Your task to perform on an android device: Open Google Maps and go to "Timeline" Image 0: 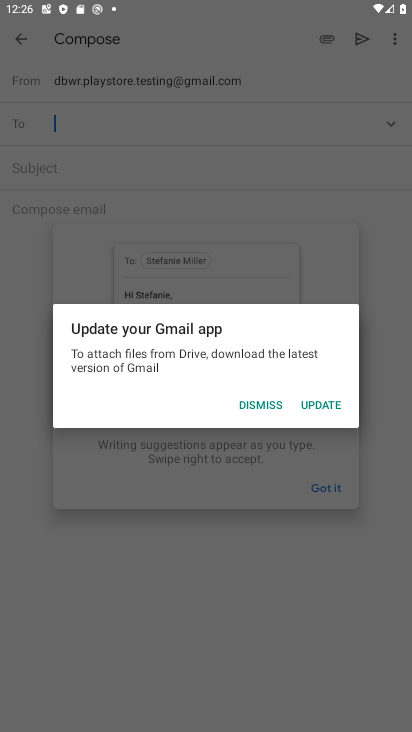
Step 0: click (273, 402)
Your task to perform on an android device: Open Google Maps and go to "Timeline" Image 1: 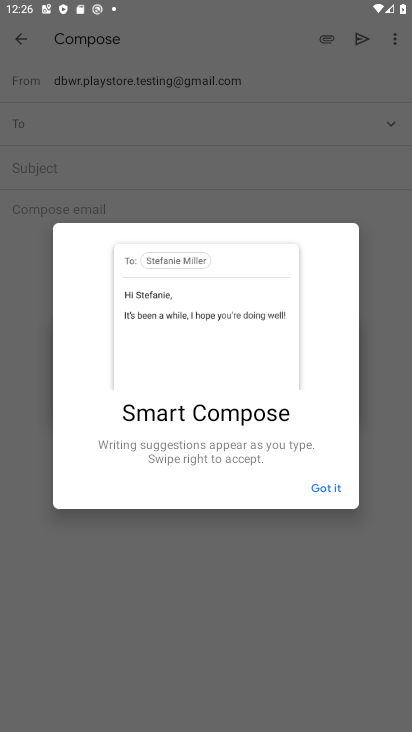
Step 1: click (328, 485)
Your task to perform on an android device: Open Google Maps and go to "Timeline" Image 2: 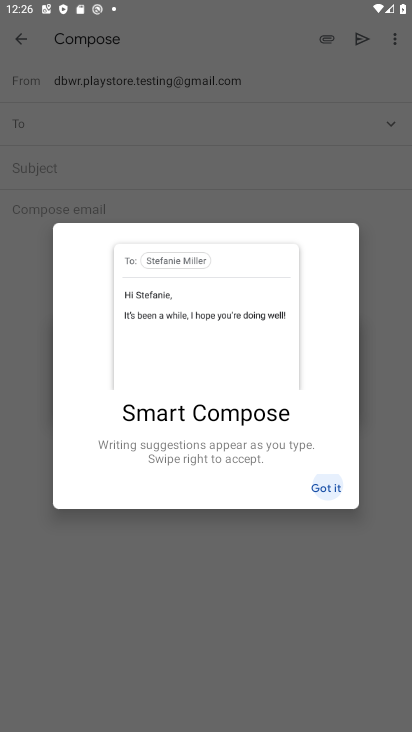
Step 2: click (328, 485)
Your task to perform on an android device: Open Google Maps and go to "Timeline" Image 3: 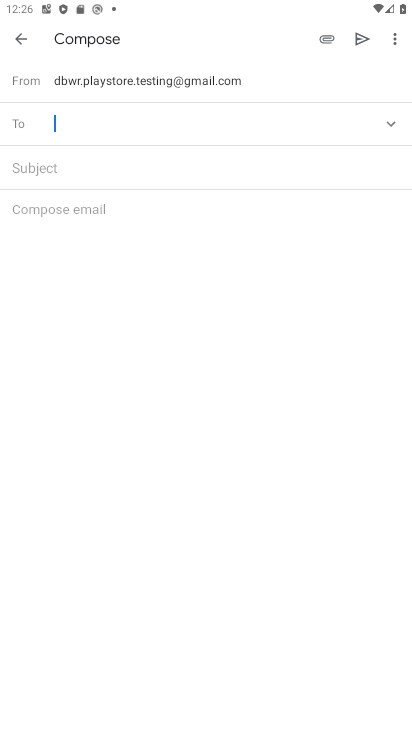
Step 3: click (16, 32)
Your task to perform on an android device: Open Google Maps and go to "Timeline" Image 4: 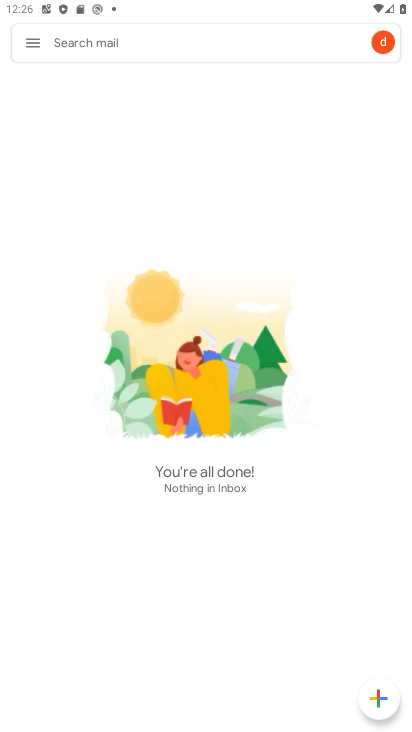
Step 4: press home button
Your task to perform on an android device: Open Google Maps and go to "Timeline" Image 5: 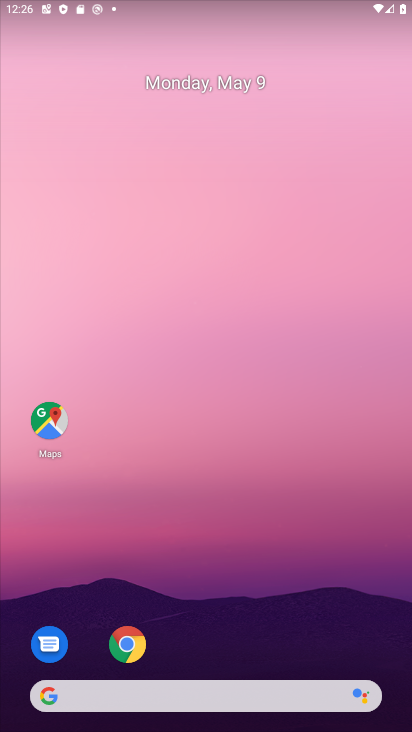
Step 5: click (50, 421)
Your task to perform on an android device: Open Google Maps and go to "Timeline" Image 6: 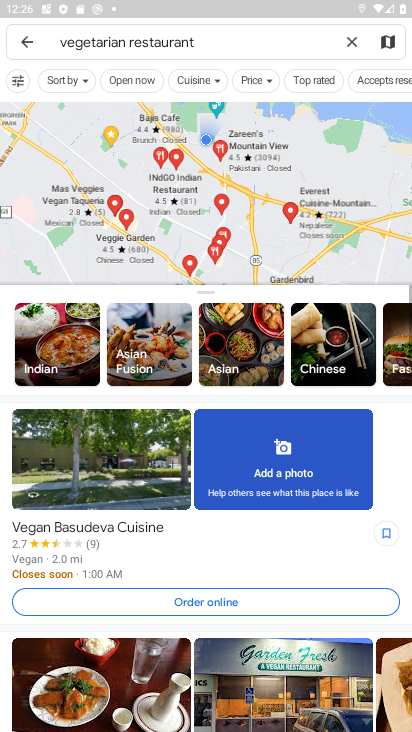
Step 6: click (21, 44)
Your task to perform on an android device: Open Google Maps and go to "Timeline" Image 7: 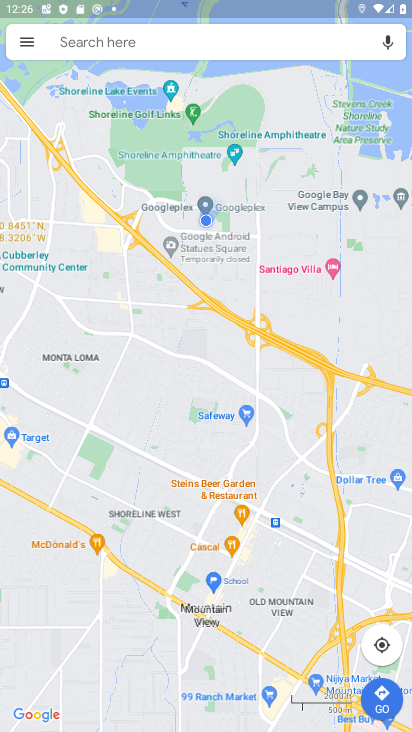
Step 7: drag from (22, 45) to (68, 315)
Your task to perform on an android device: Open Google Maps and go to "Timeline" Image 8: 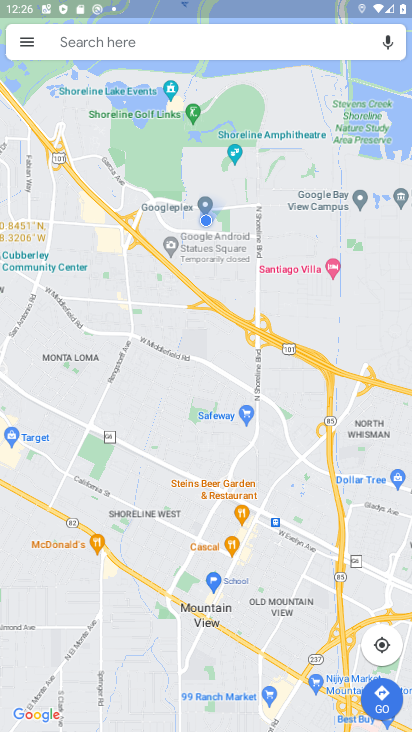
Step 8: click (29, 38)
Your task to perform on an android device: Open Google Maps and go to "Timeline" Image 9: 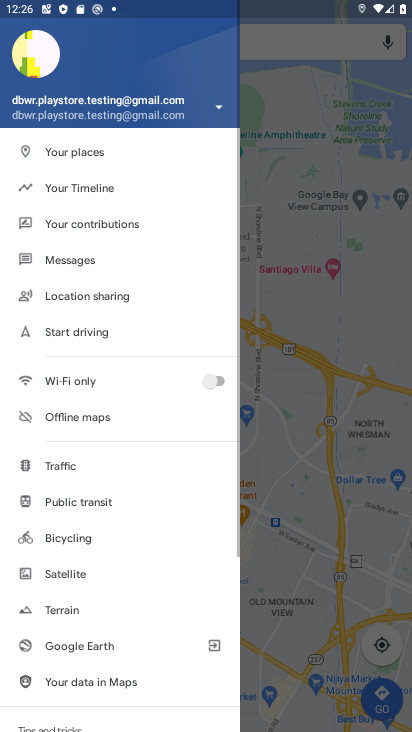
Step 9: click (75, 194)
Your task to perform on an android device: Open Google Maps and go to "Timeline" Image 10: 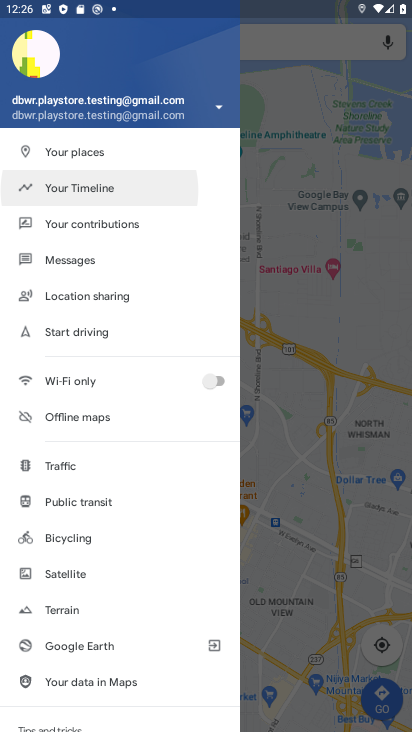
Step 10: click (75, 189)
Your task to perform on an android device: Open Google Maps and go to "Timeline" Image 11: 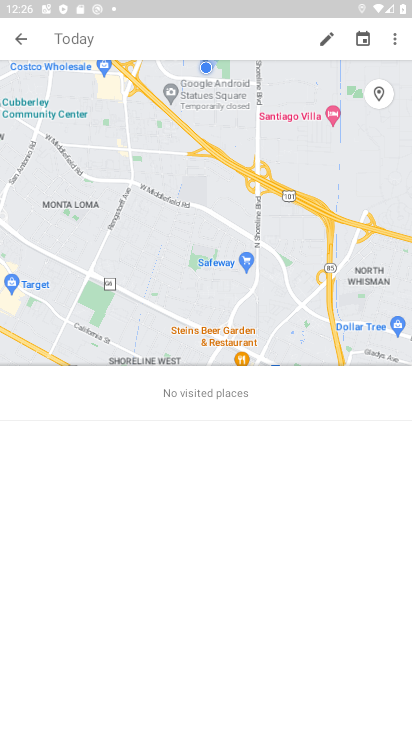
Step 11: click (398, 40)
Your task to perform on an android device: Open Google Maps and go to "Timeline" Image 12: 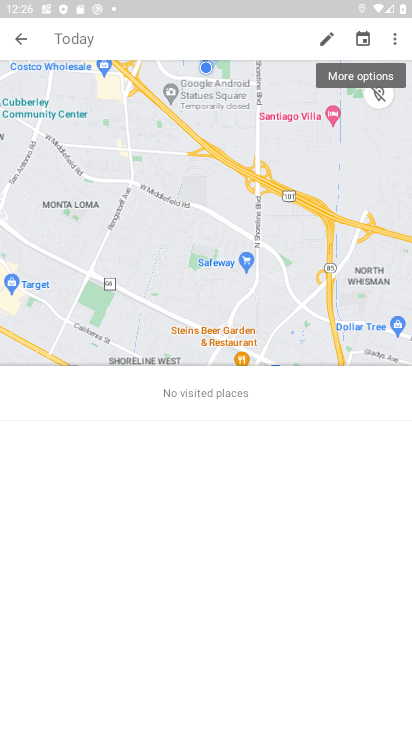
Step 12: click (398, 40)
Your task to perform on an android device: Open Google Maps and go to "Timeline" Image 13: 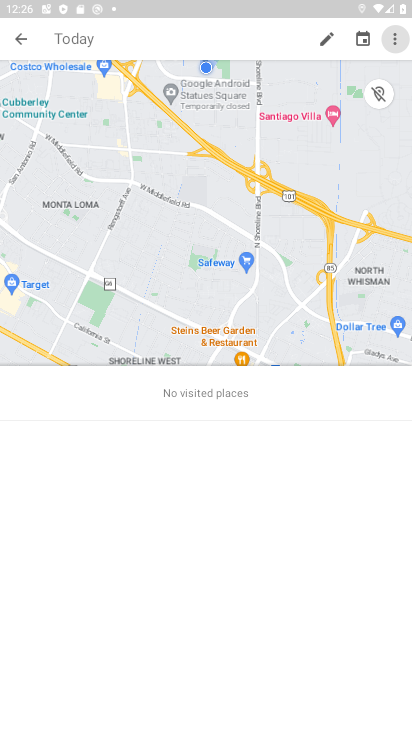
Step 13: click (398, 40)
Your task to perform on an android device: Open Google Maps and go to "Timeline" Image 14: 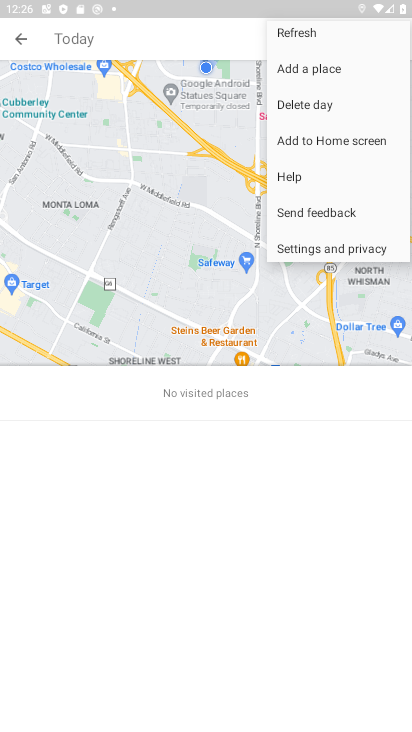
Step 14: click (396, 38)
Your task to perform on an android device: Open Google Maps and go to "Timeline" Image 15: 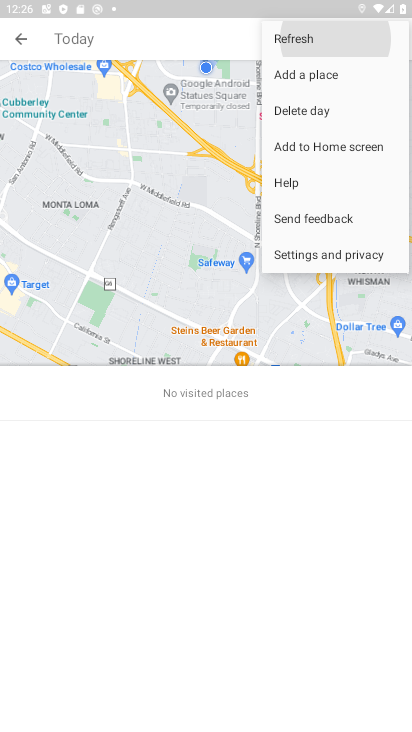
Step 15: click (396, 38)
Your task to perform on an android device: Open Google Maps and go to "Timeline" Image 16: 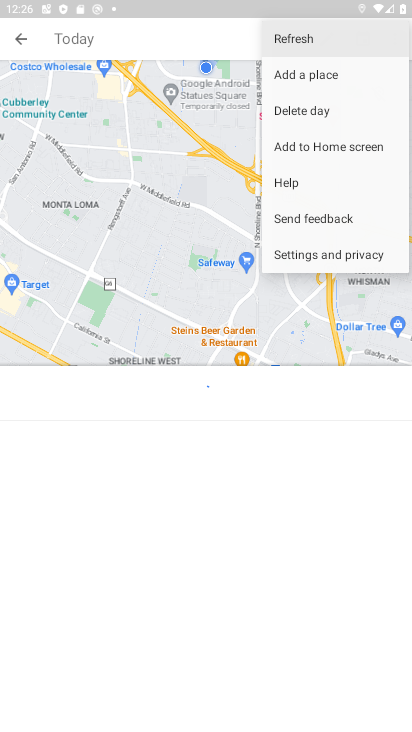
Step 16: click (396, 38)
Your task to perform on an android device: Open Google Maps and go to "Timeline" Image 17: 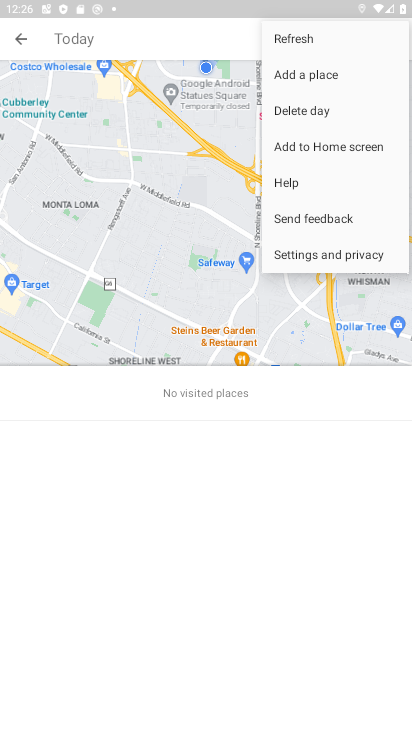
Step 17: task complete